Your task to perform on an android device: Open the calendar app, open the side menu, and click the "Day" option Image 0: 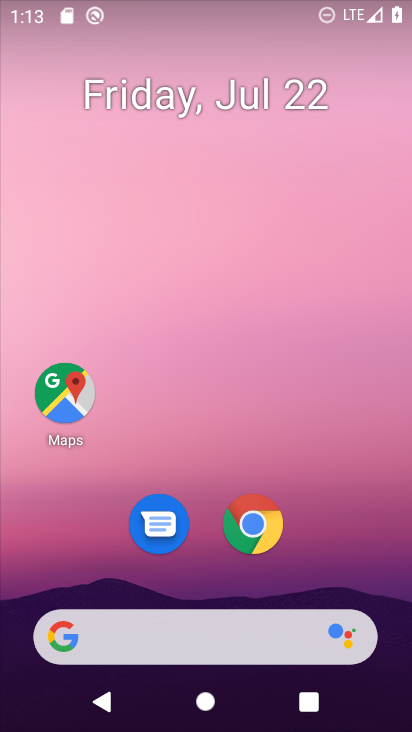
Step 0: drag from (334, 556) to (313, 67)
Your task to perform on an android device: Open the calendar app, open the side menu, and click the "Day" option Image 1: 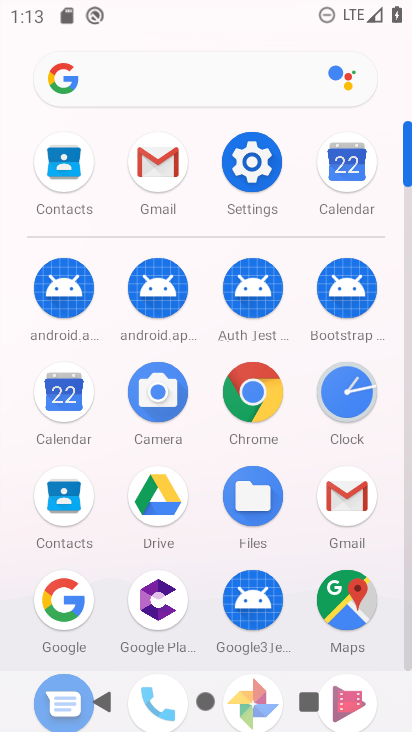
Step 1: click (58, 381)
Your task to perform on an android device: Open the calendar app, open the side menu, and click the "Day" option Image 2: 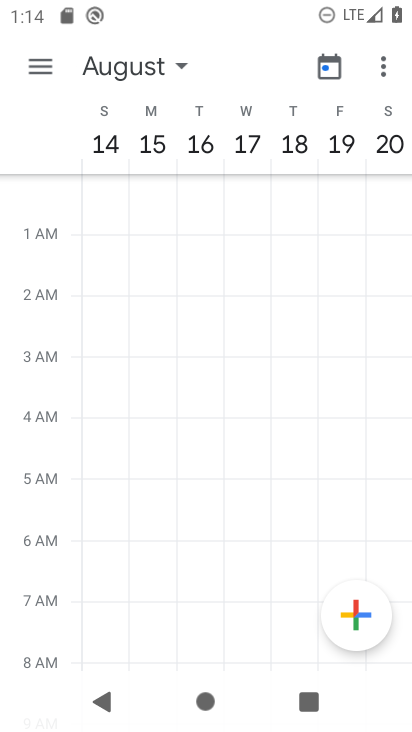
Step 2: click (40, 62)
Your task to perform on an android device: Open the calendar app, open the side menu, and click the "Day" option Image 3: 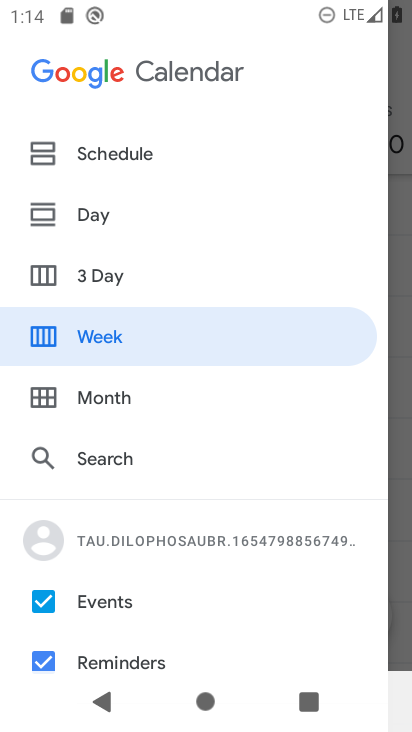
Step 3: click (38, 209)
Your task to perform on an android device: Open the calendar app, open the side menu, and click the "Day" option Image 4: 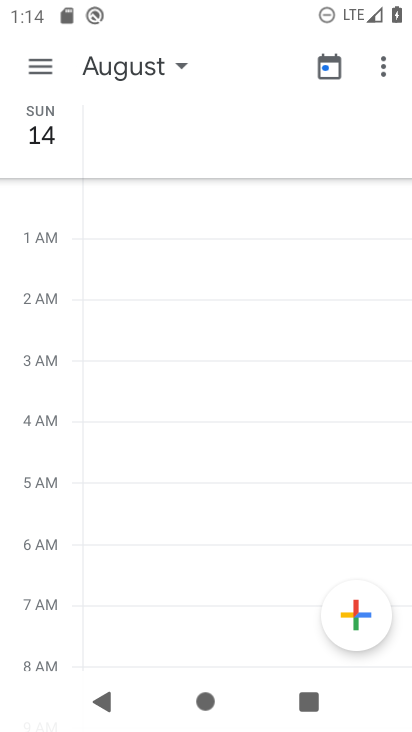
Step 4: task complete